Your task to perform on an android device: turn notification dots off Image 0: 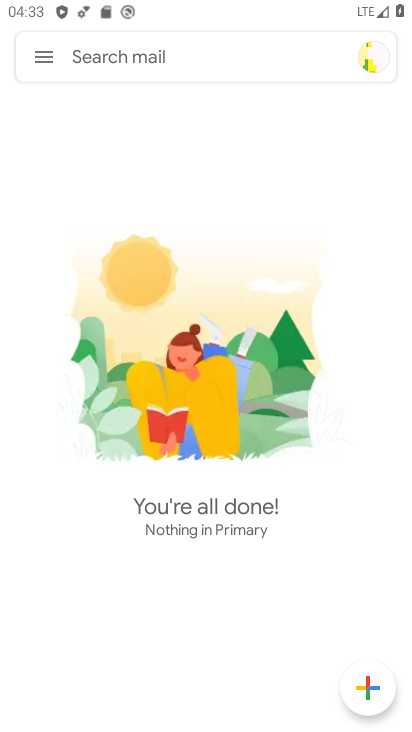
Step 0: press back button
Your task to perform on an android device: turn notification dots off Image 1: 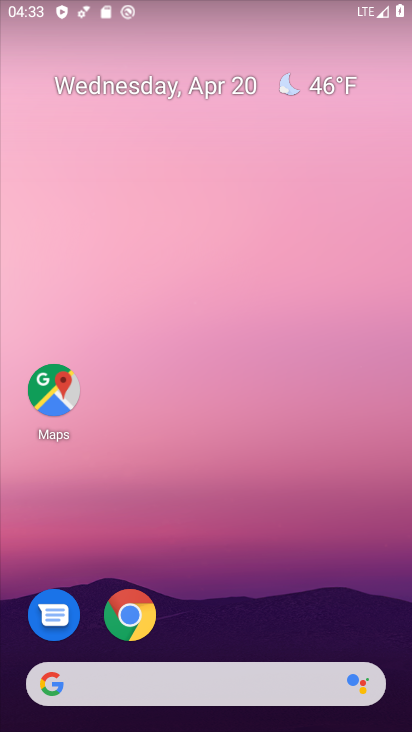
Step 1: drag from (196, 604) to (328, 118)
Your task to perform on an android device: turn notification dots off Image 2: 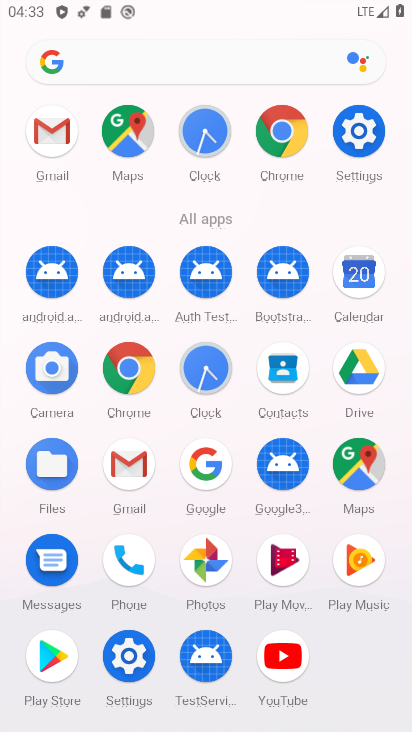
Step 2: click (357, 129)
Your task to perform on an android device: turn notification dots off Image 3: 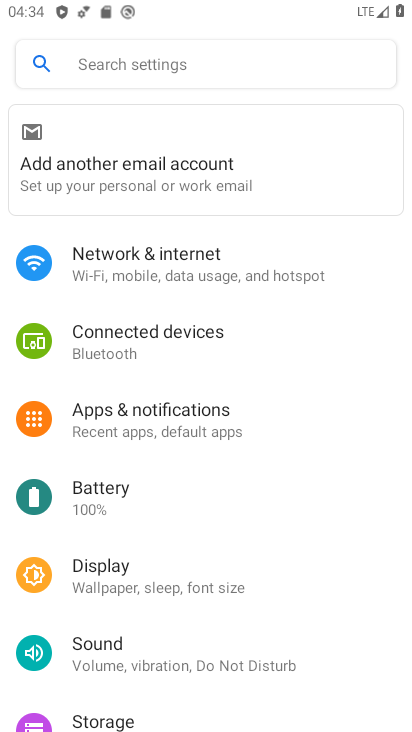
Step 3: click (154, 418)
Your task to perform on an android device: turn notification dots off Image 4: 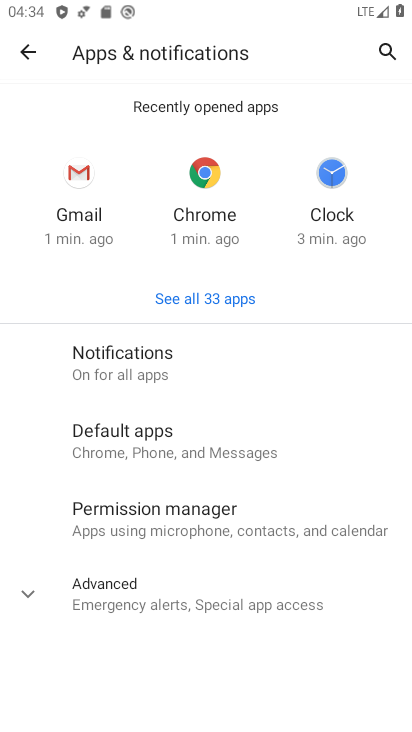
Step 4: click (168, 358)
Your task to perform on an android device: turn notification dots off Image 5: 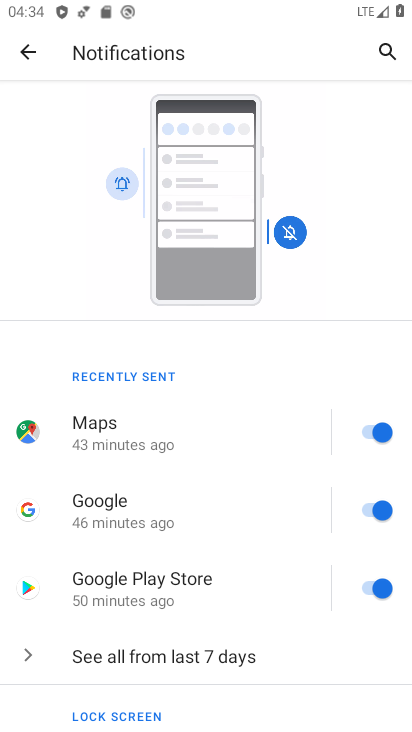
Step 5: drag from (160, 641) to (278, 151)
Your task to perform on an android device: turn notification dots off Image 6: 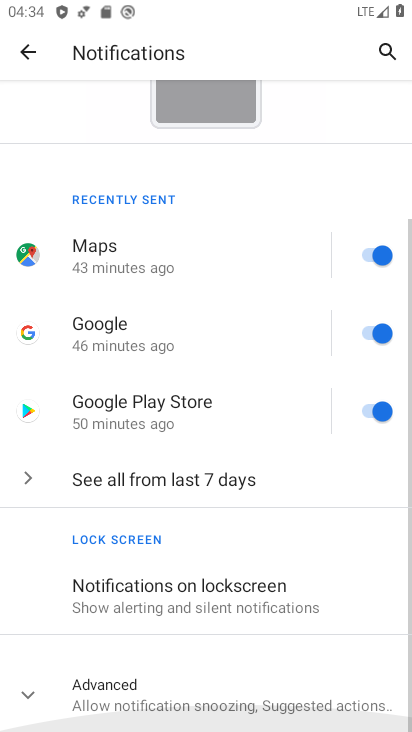
Step 6: click (174, 690)
Your task to perform on an android device: turn notification dots off Image 7: 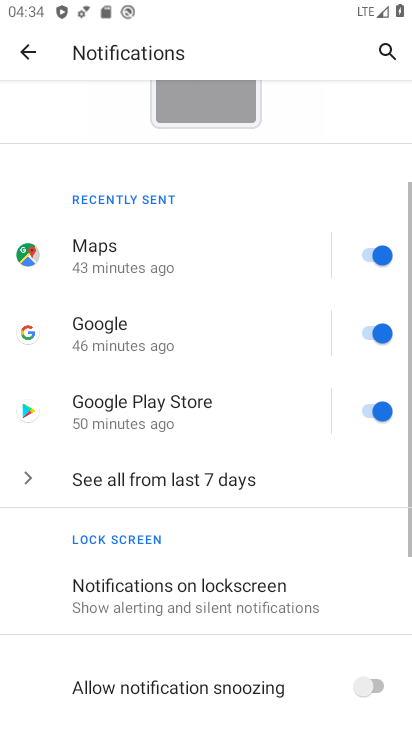
Step 7: task complete